Your task to perform on an android device: See recent photos Image 0: 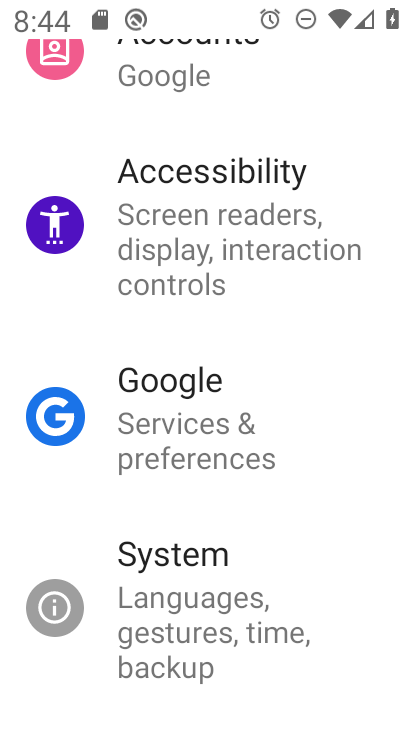
Step 0: press home button
Your task to perform on an android device: See recent photos Image 1: 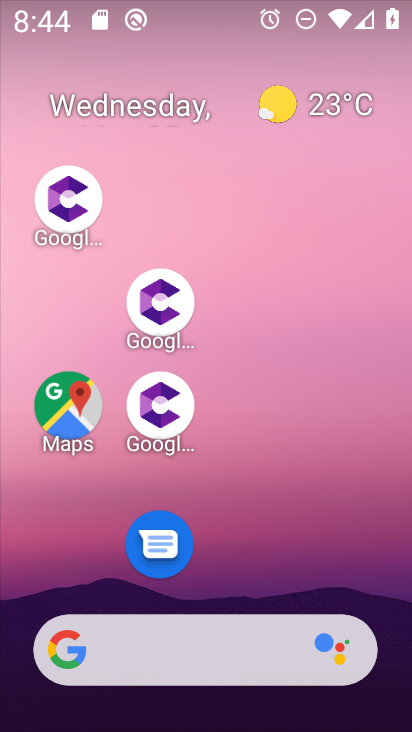
Step 1: drag from (320, 525) to (199, 90)
Your task to perform on an android device: See recent photos Image 2: 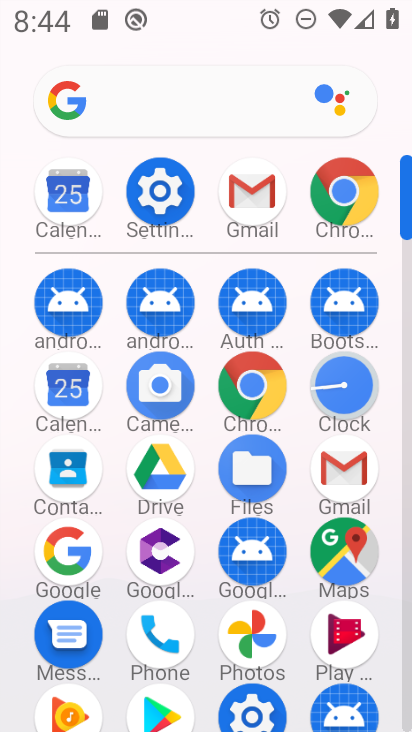
Step 2: click (261, 625)
Your task to perform on an android device: See recent photos Image 3: 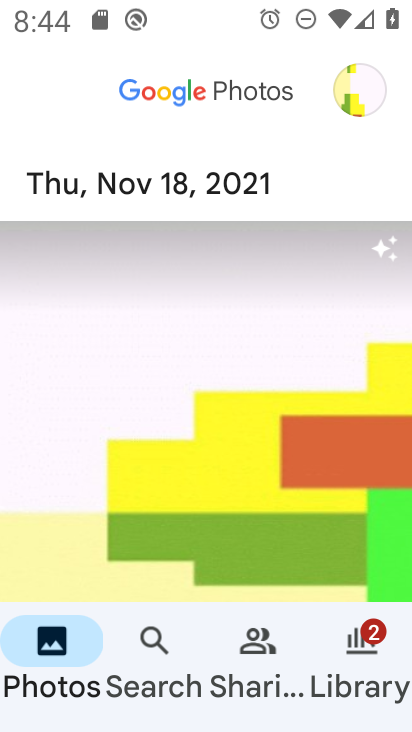
Step 3: task complete